Your task to perform on an android device: Clear the shopping cart on target.com. Add apple airpods to the cart on target.com, then select checkout. Image 0: 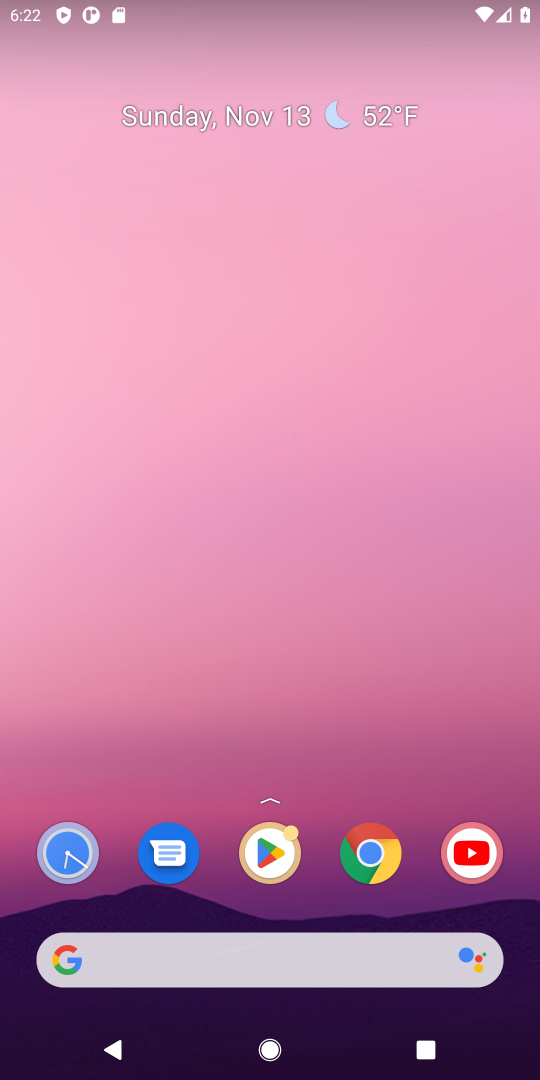
Step 0: press home button
Your task to perform on an android device: Clear the shopping cart on target.com. Add apple airpods to the cart on target.com, then select checkout. Image 1: 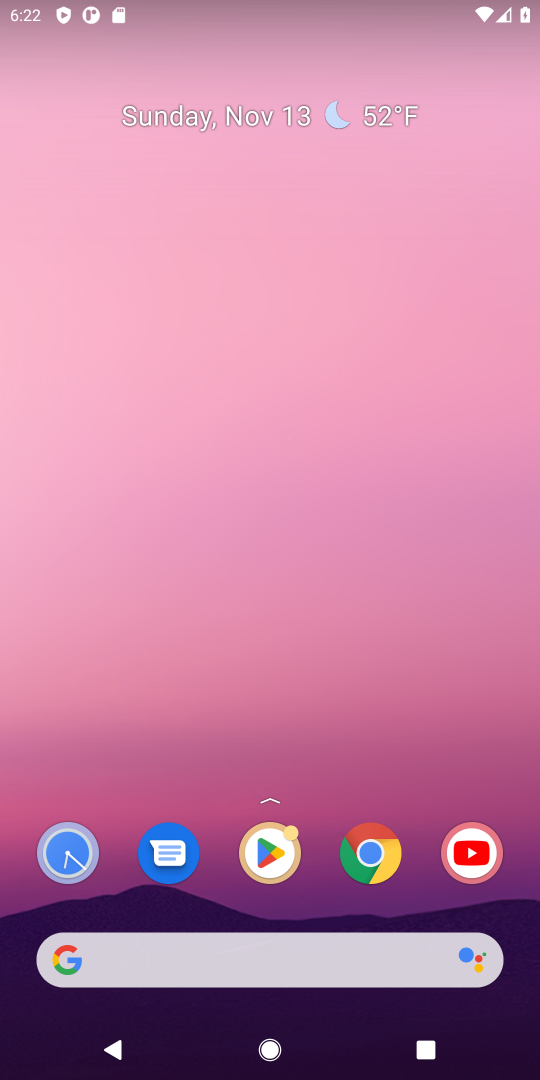
Step 1: click (99, 962)
Your task to perform on an android device: Clear the shopping cart on target.com. Add apple airpods to the cart on target.com, then select checkout. Image 2: 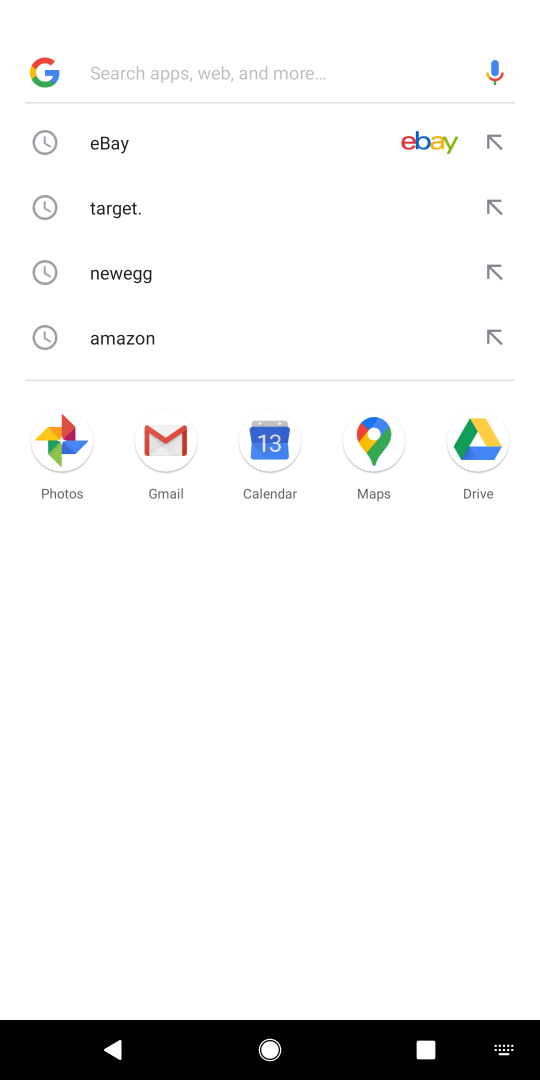
Step 2: type "target.com"
Your task to perform on an android device: Clear the shopping cart on target.com. Add apple airpods to the cart on target.com, then select checkout. Image 3: 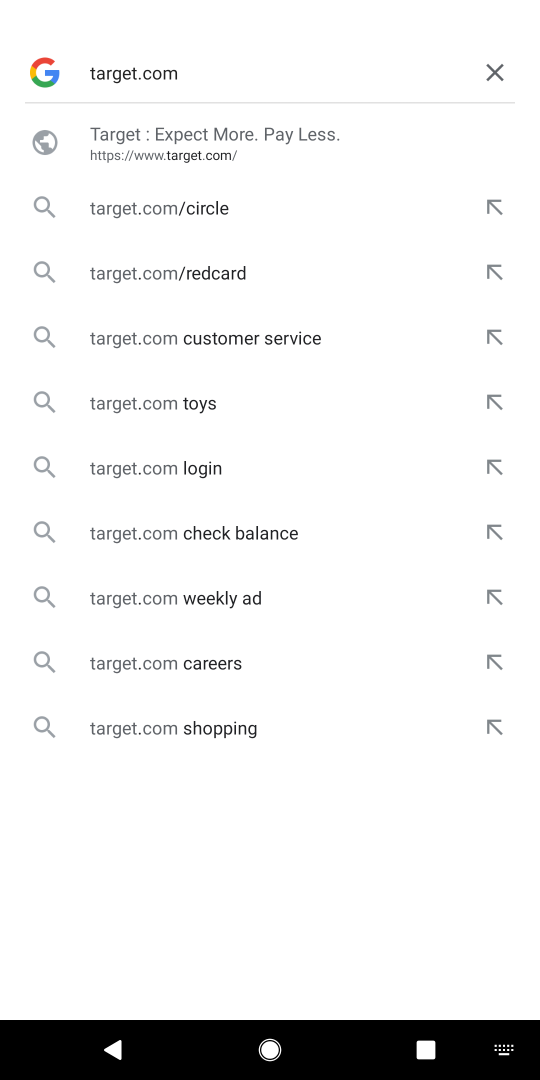
Step 3: press enter
Your task to perform on an android device: Clear the shopping cart on target.com. Add apple airpods to the cart on target.com, then select checkout. Image 4: 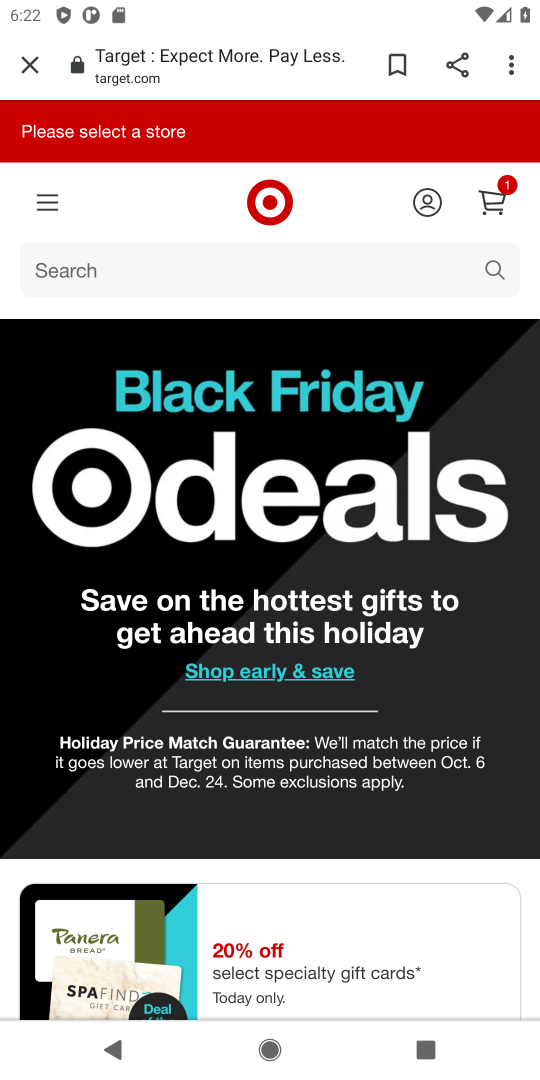
Step 4: click (496, 202)
Your task to perform on an android device: Clear the shopping cart on target.com. Add apple airpods to the cart on target.com, then select checkout. Image 5: 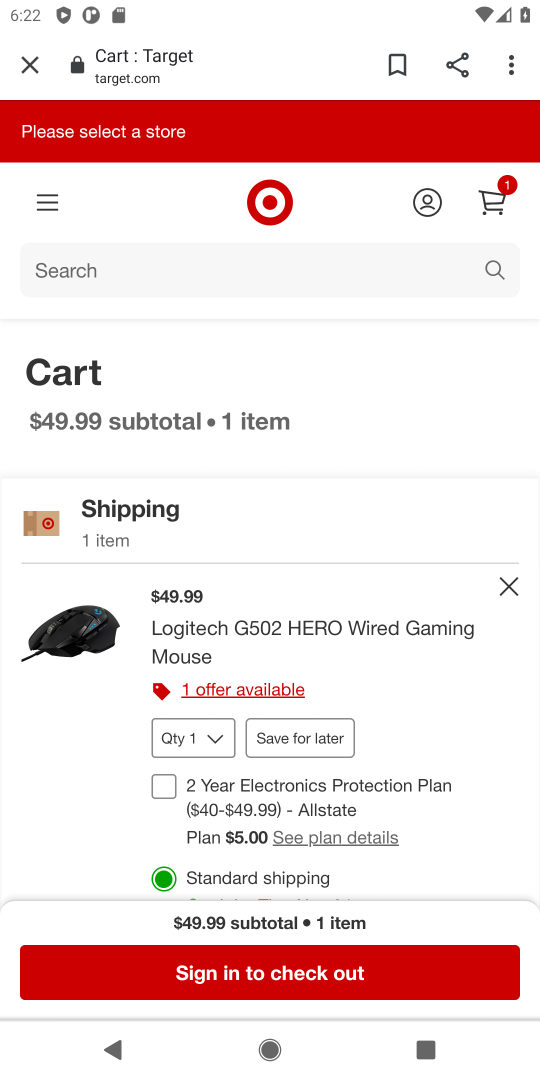
Step 5: click (510, 586)
Your task to perform on an android device: Clear the shopping cart on target.com. Add apple airpods to the cart on target.com, then select checkout. Image 6: 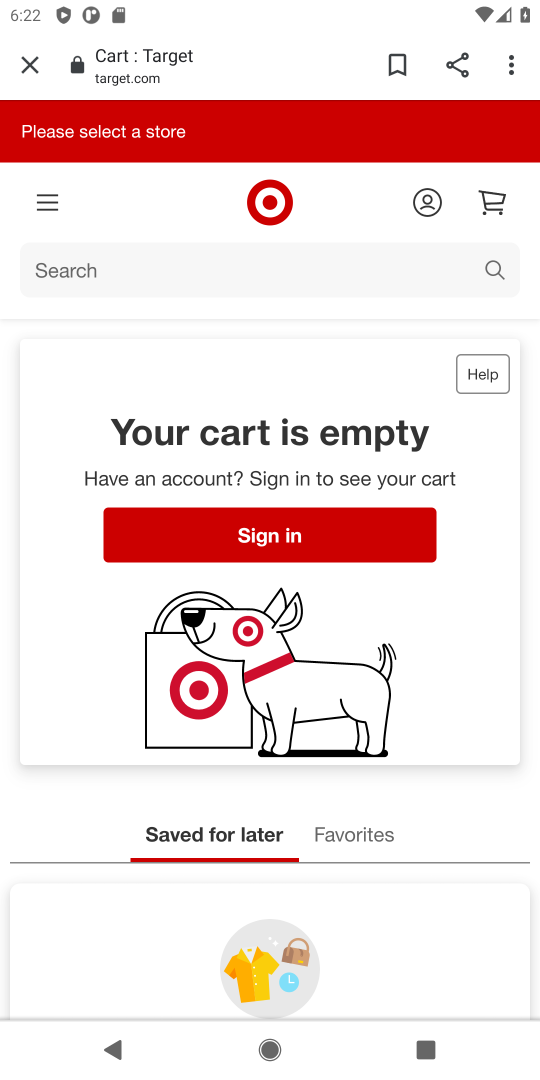
Step 6: click (122, 266)
Your task to perform on an android device: Clear the shopping cart on target.com. Add apple airpods to the cart on target.com, then select checkout. Image 7: 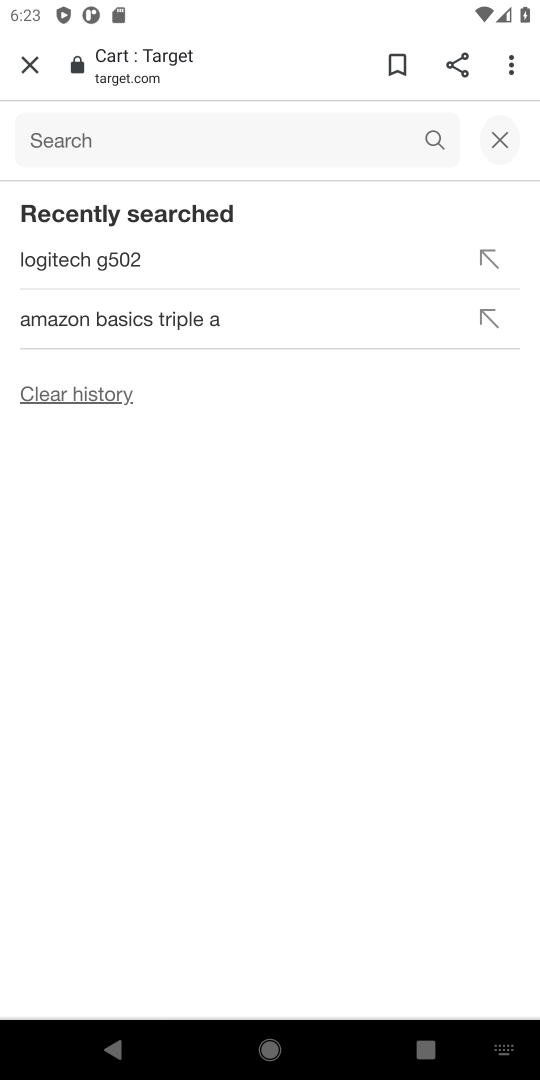
Step 7: type "apple airpods"
Your task to perform on an android device: Clear the shopping cart on target.com. Add apple airpods to the cart on target.com, then select checkout. Image 8: 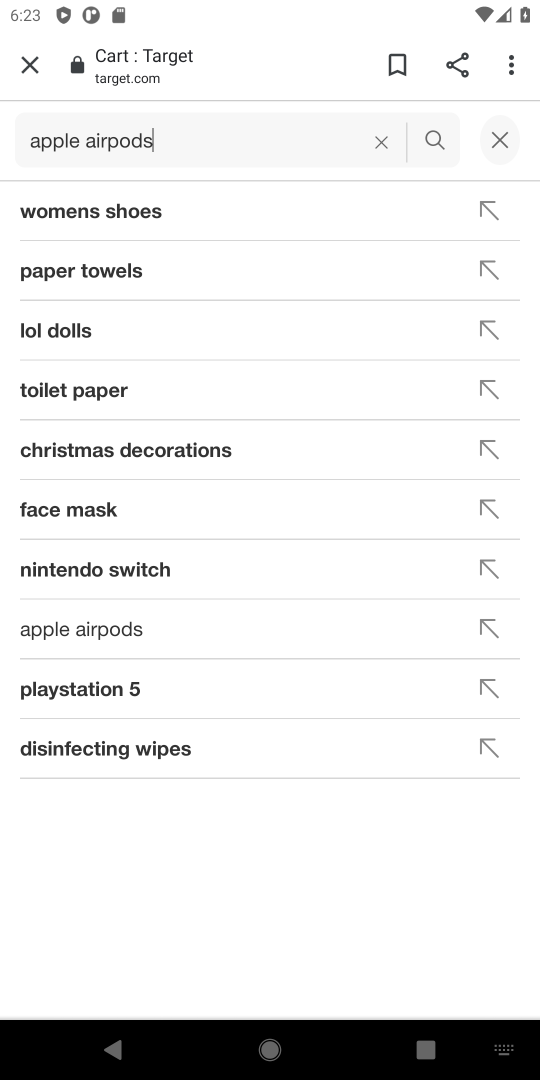
Step 8: press enter
Your task to perform on an android device: Clear the shopping cart on target.com. Add apple airpods to the cart on target.com, then select checkout. Image 9: 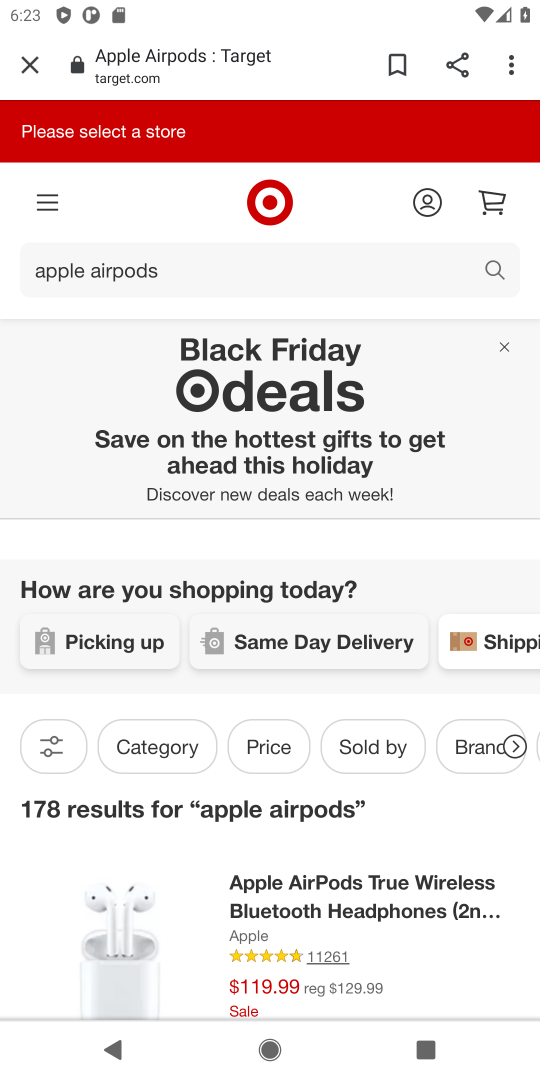
Step 9: drag from (386, 962) to (391, 464)
Your task to perform on an android device: Clear the shopping cart on target.com. Add apple airpods to the cart on target.com, then select checkout. Image 10: 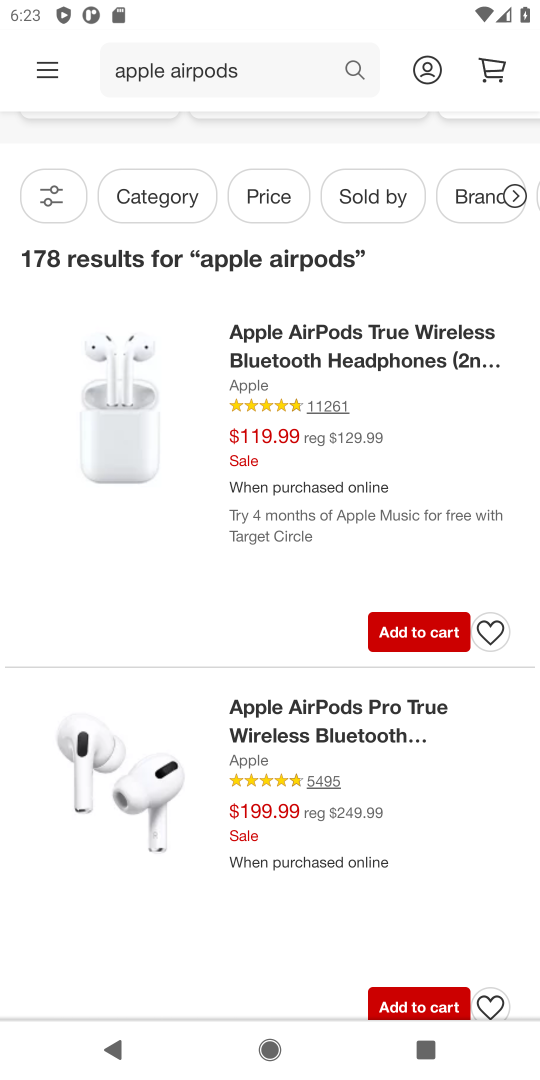
Step 10: drag from (299, 836) to (293, 525)
Your task to perform on an android device: Clear the shopping cart on target.com. Add apple airpods to the cart on target.com, then select checkout. Image 11: 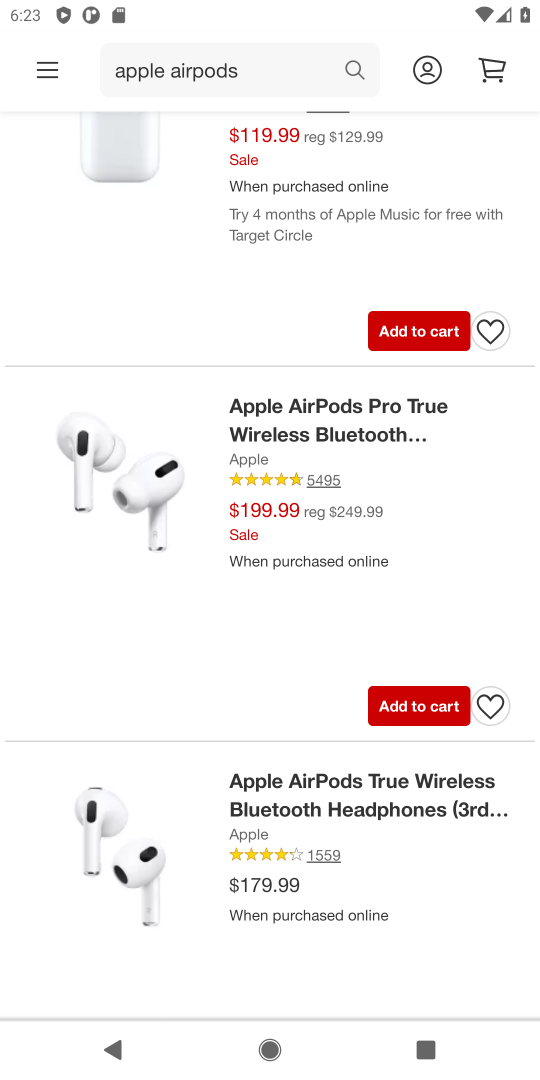
Step 11: click (410, 324)
Your task to perform on an android device: Clear the shopping cart on target.com. Add apple airpods to the cart on target.com, then select checkout. Image 12: 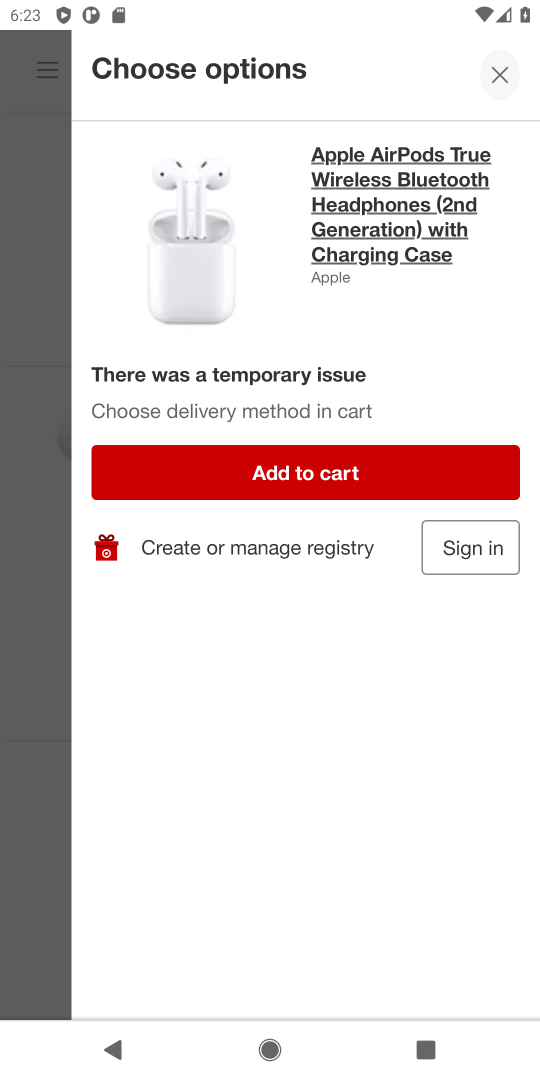
Step 12: click (336, 466)
Your task to perform on an android device: Clear the shopping cart on target.com. Add apple airpods to the cart on target.com, then select checkout. Image 13: 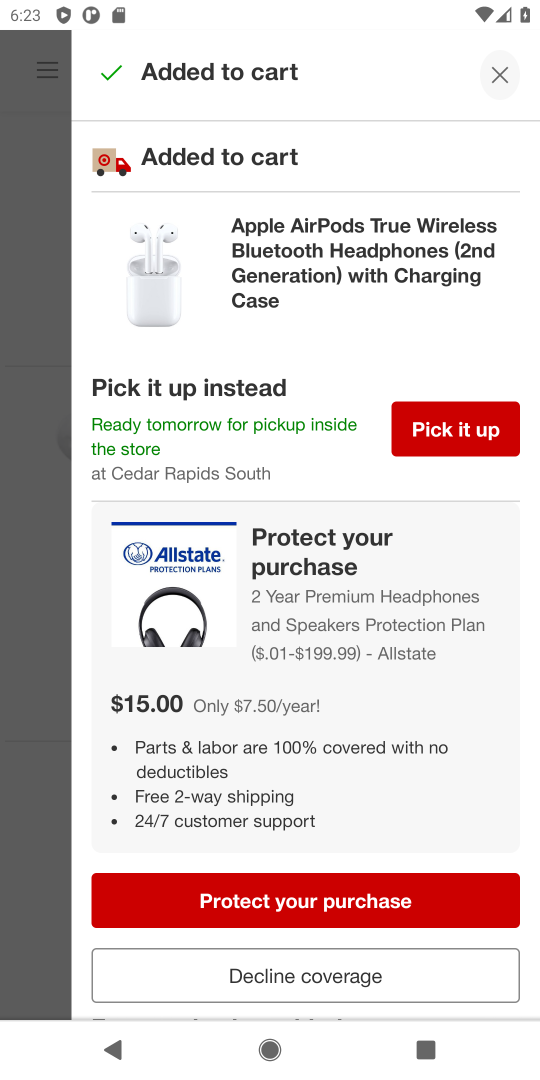
Step 13: click (342, 902)
Your task to perform on an android device: Clear the shopping cart on target.com. Add apple airpods to the cart on target.com, then select checkout. Image 14: 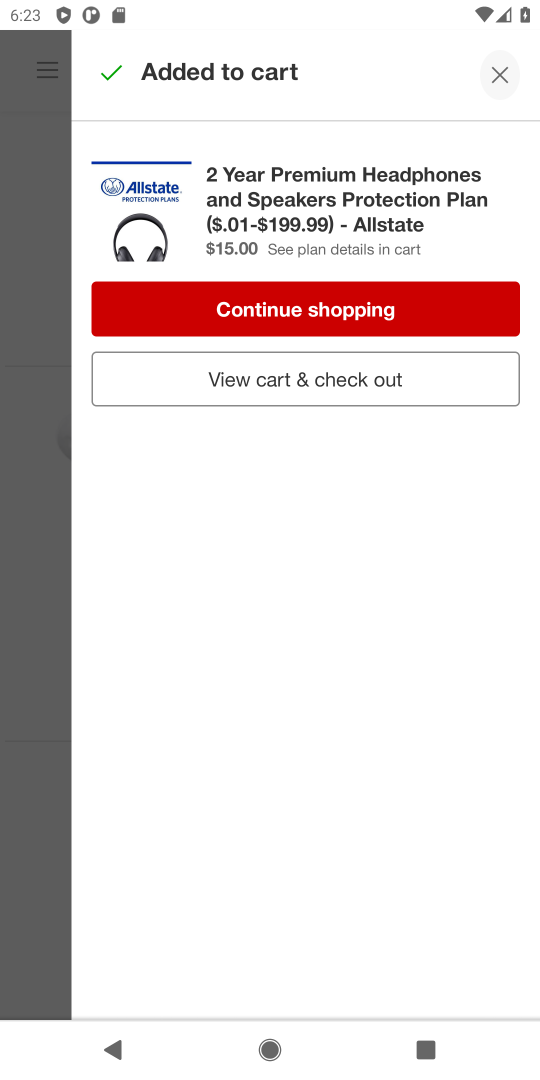
Step 14: click (352, 383)
Your task to perform on an android device: Clear the shopping cart on target.com. Add apple airpods to the cart on target.com, then select checkout. Image 15: 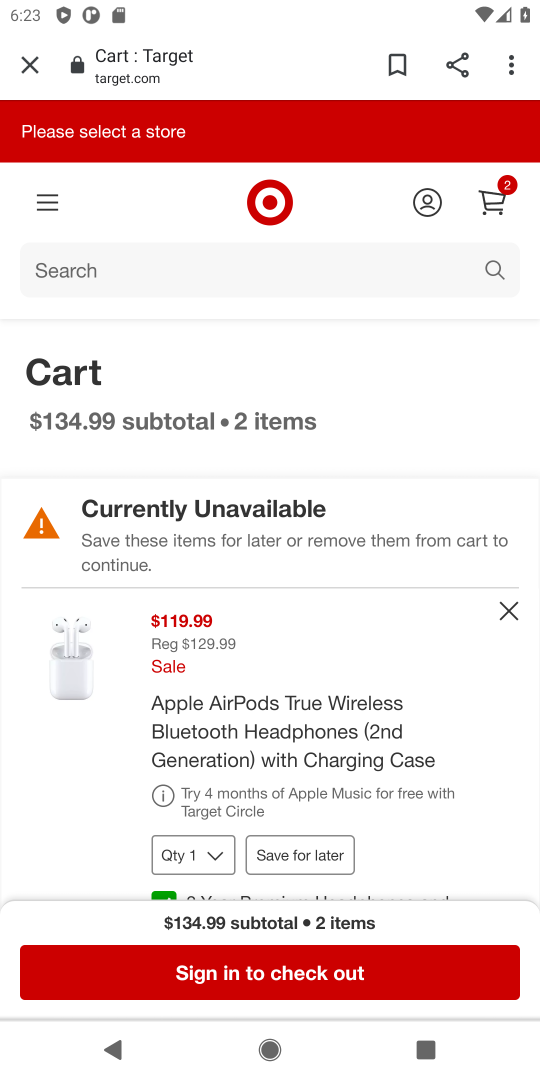
Step 15: task complete